Your task to perform on an android device: change the clock display to show seconds Image 0: 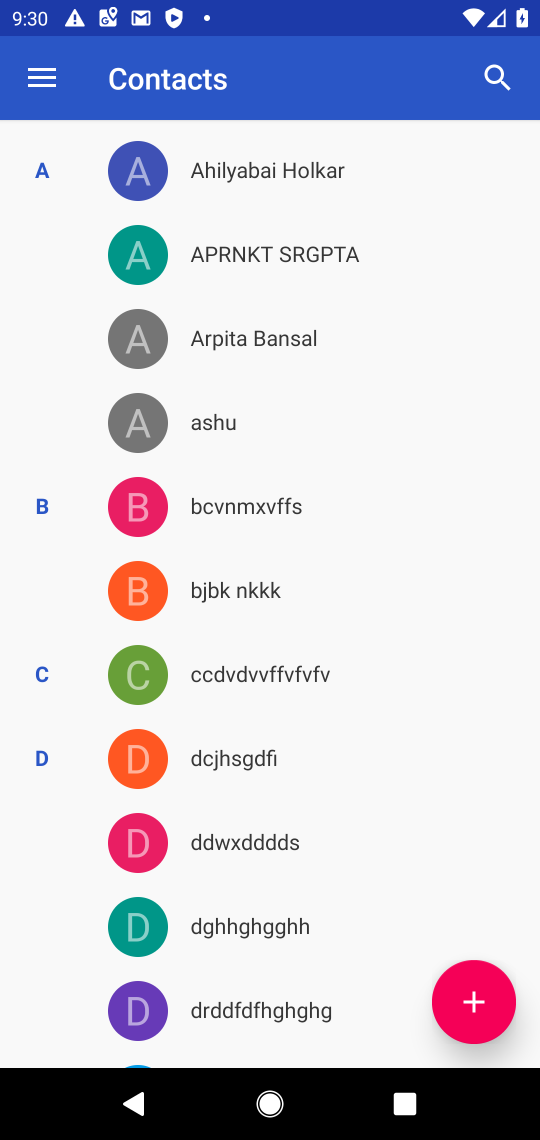
Step 0: press home button
Your task to perform on an android device: change the clock display to show seconds Image 1: 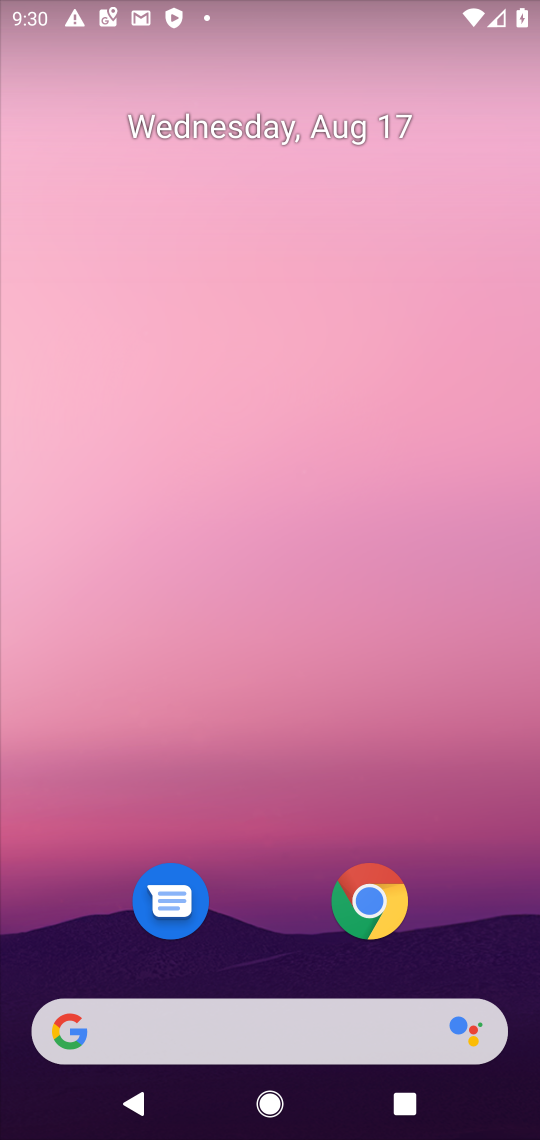
Step 1: drag from (278, 872) to (335, 60)
Your task to perform on an android device: change the clock display to show seconds Image 2: 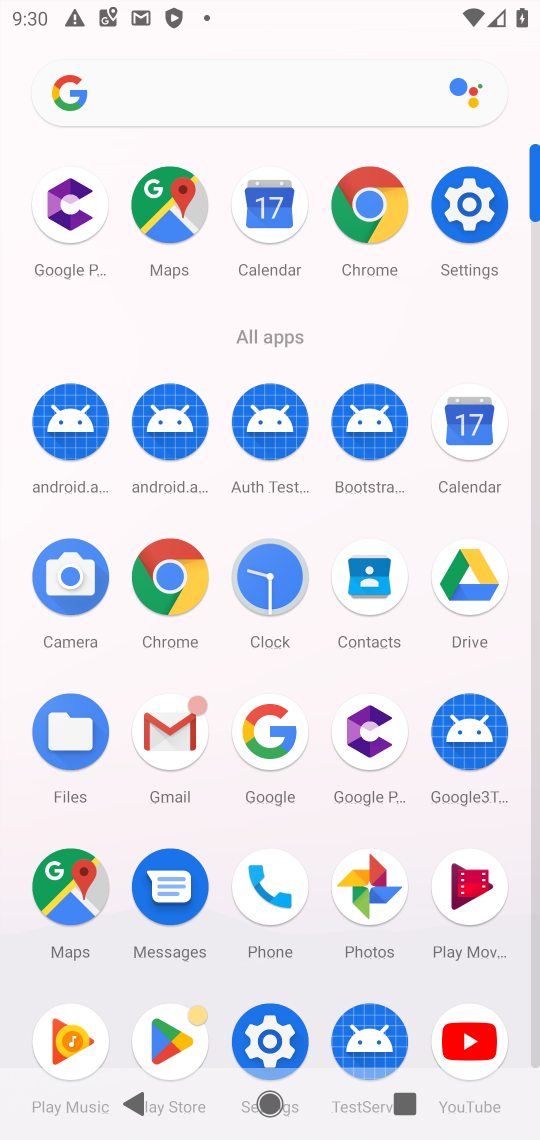
Step 2: click (275, 584)
Your task to perform on an android device: change the clock display to show seconds Image 3: 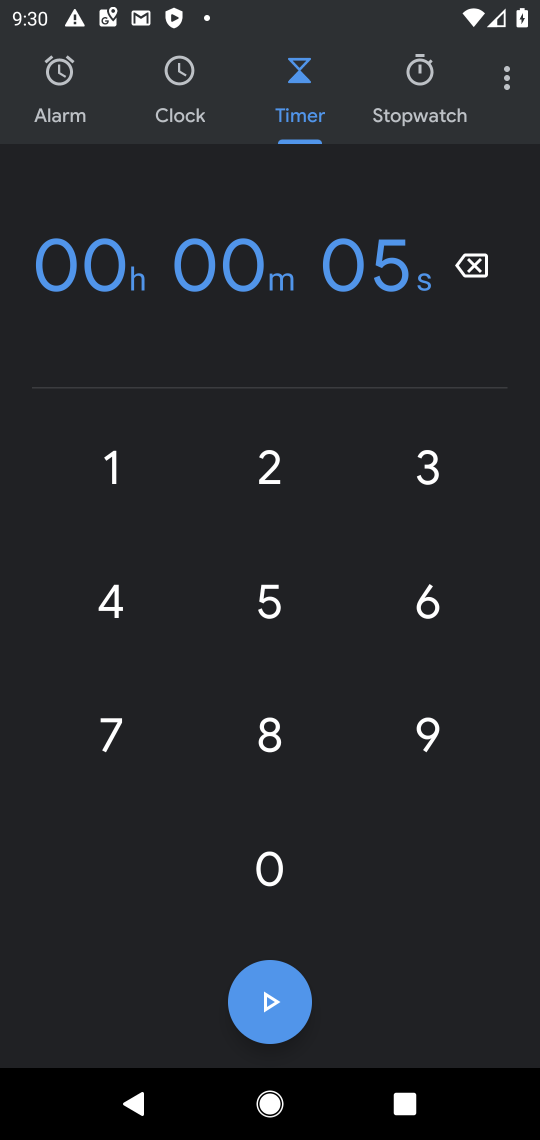
Step 3: click (508, 67)
Your task to perform on an android device: change the clock display to show seconds Image 4: 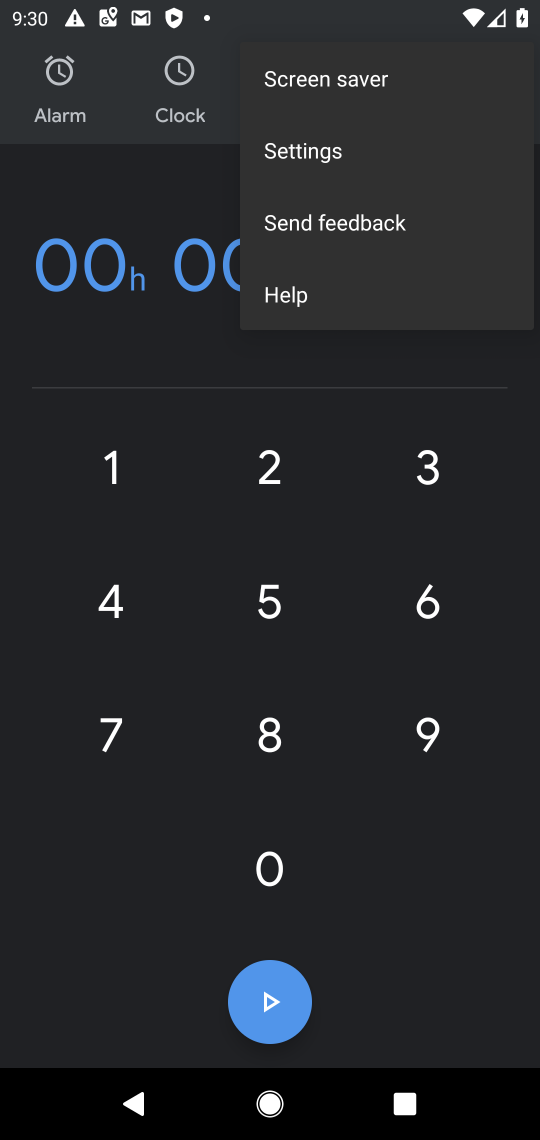
Step 4: click (314, 150)
Your task to perform on an android device: change the clock display to show seconds Image 5: 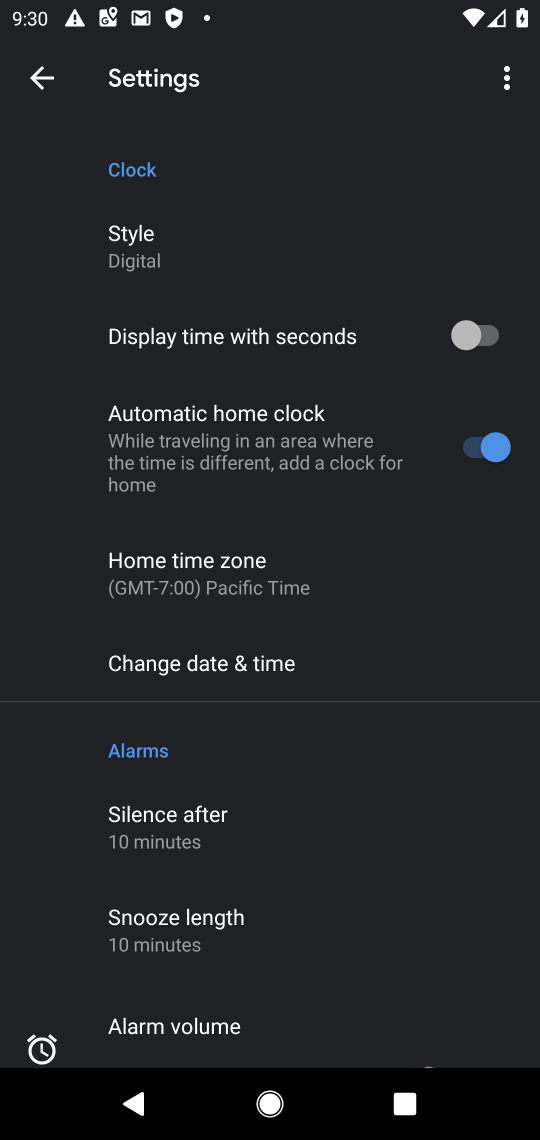
Step 5: click (467, 325)
Your task to perform on an android device: change the clock display to show seconds Image 6: 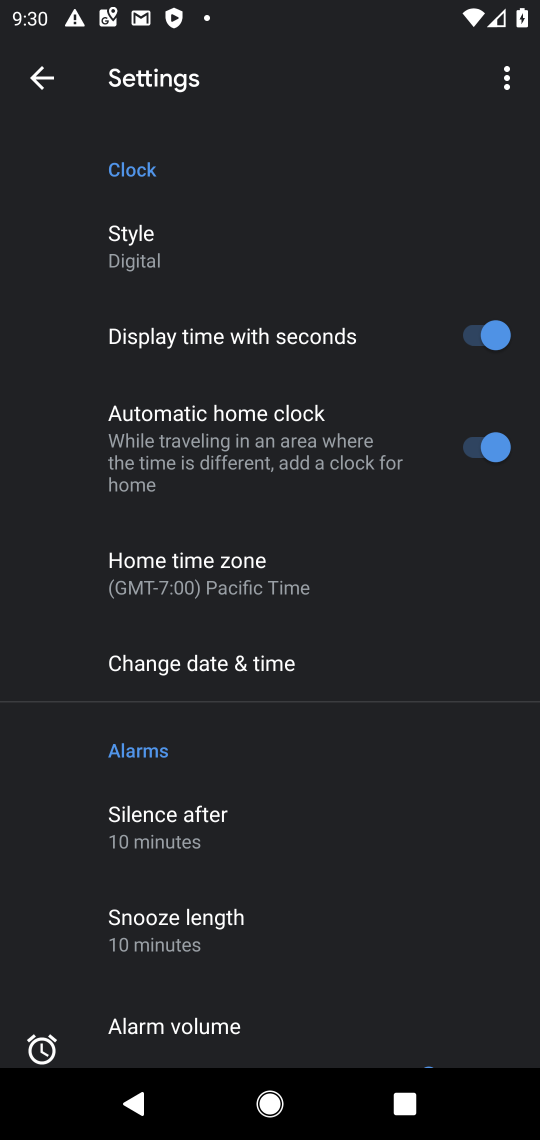
Step 6: task complete